Your task to perform on an android device: Play the last video I watched on Youtube Image 0: 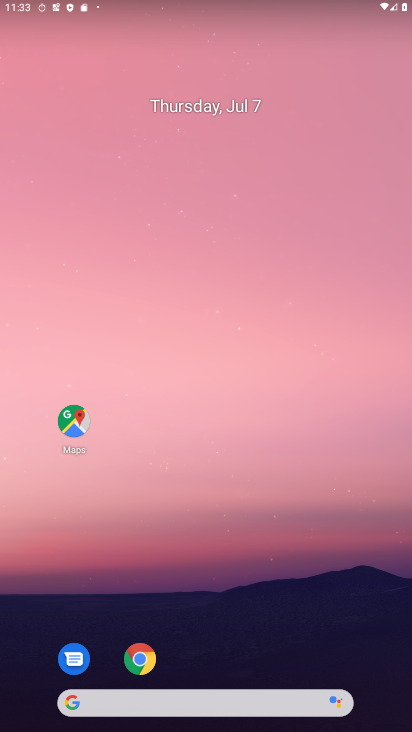
Step 0: press home button
Your task to perform on an android device: Play the last video I watched on Youtube Image 1: 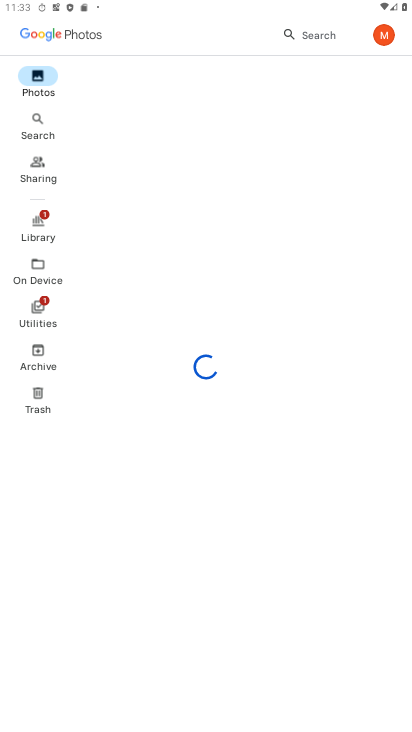
Step 1: click (219, 30)
Your task to perform on an android device: Play the last video I watched on Youtube Image 2: 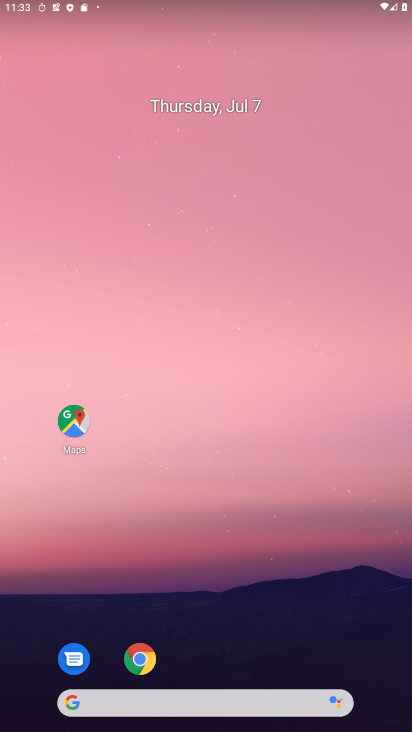
Step 2: drag from (227, 671) to (206, 39)
Your task to perform on an android device: Play the last video I watched on Youtube Image 3: 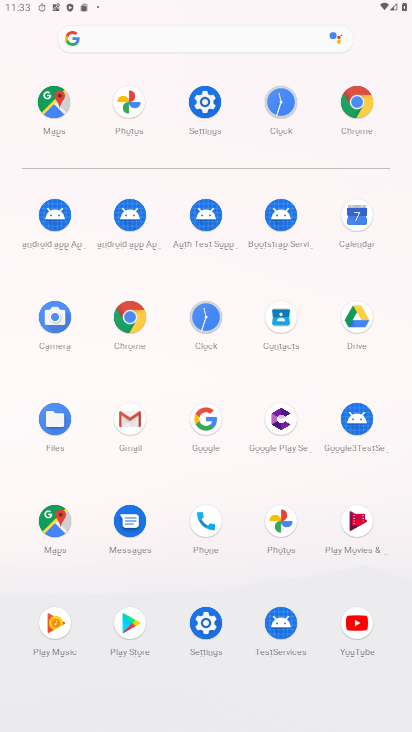
Step 3: click (354, 617)
Your task to perform on an android device: Play the last video I watched on Youtube Image 4: 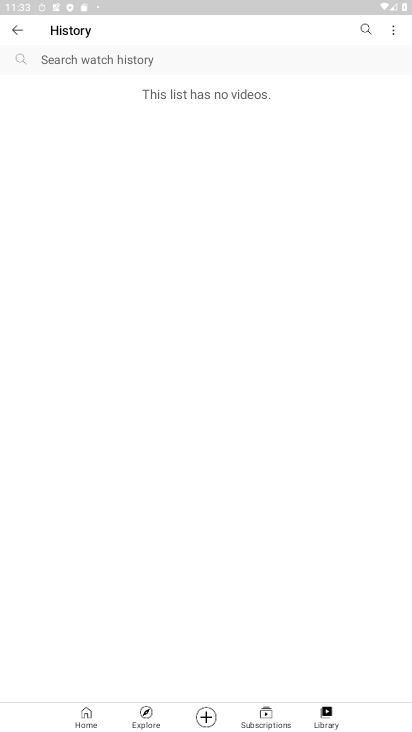
Step 4: task complete